Your task to perform on an android device: show emergency info Image 0: 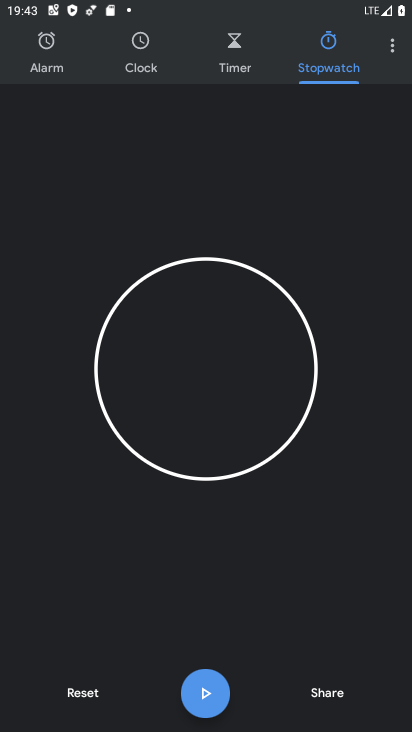
Step 0: press home button
Your task to perform on an android device: show emergency info Image 1: 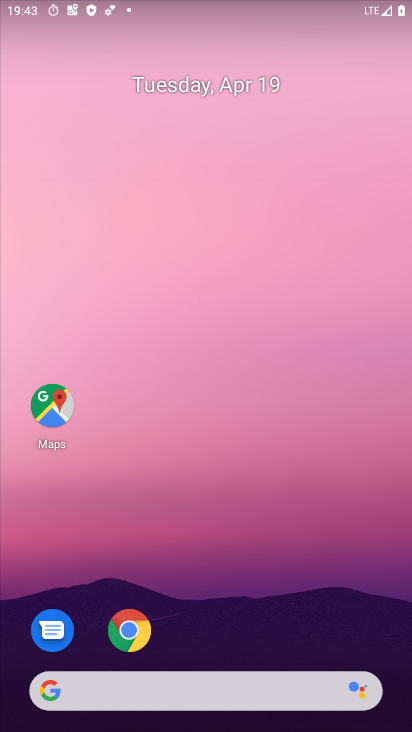
Step 1: drag from (206, 658) to (199, 0)
Your task to perform on an android device: show emergency info Image 2: 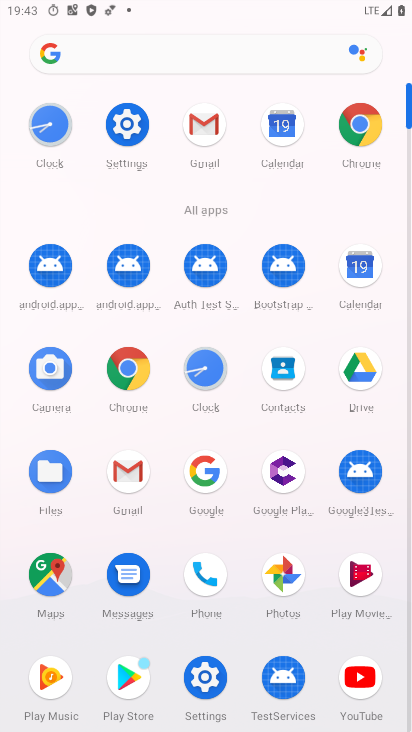
Step 2: click (142, 124)
Your task to perform on an android device: show emergency info Image 3: 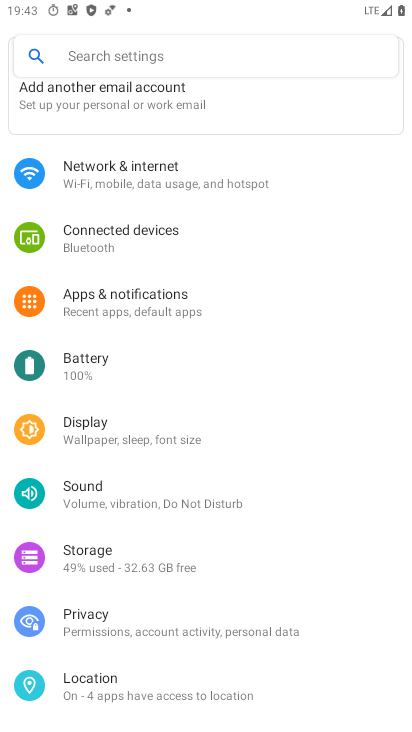
Step 3: drag from (217, 552) to (226, 89)
Your task to perform on an android device: show emergency info Image 4: 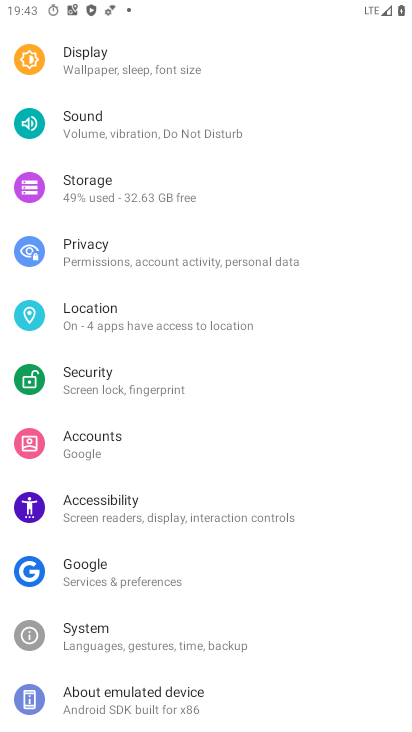
Step 4: drag from (180, 577) to (163, 251)
Your task to perform on an android device: show emergency info Image 5: 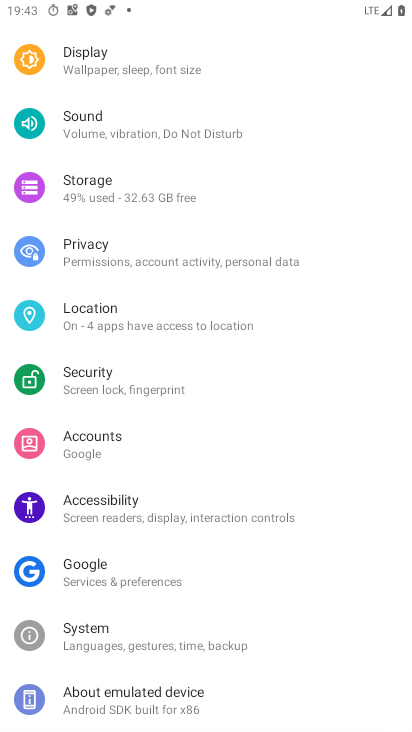
Step 5: click (150, 700)
Your task to perform on an android device: show emergency info Image 6: 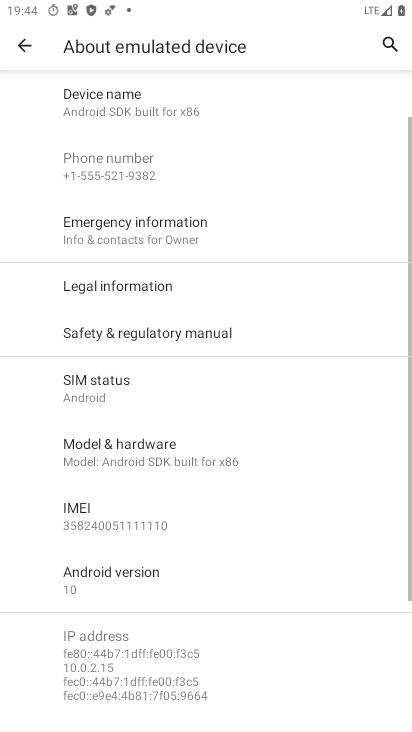
Step 6: click (90, 217)
Your task to perform on an android device: show emergency info Image 7: 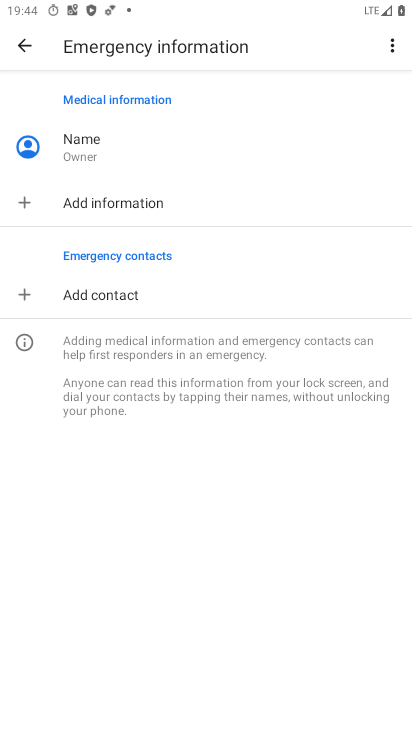
Step 7: task complete